Your task to perform on an android device: toggle translation in the chrome app Image 0: 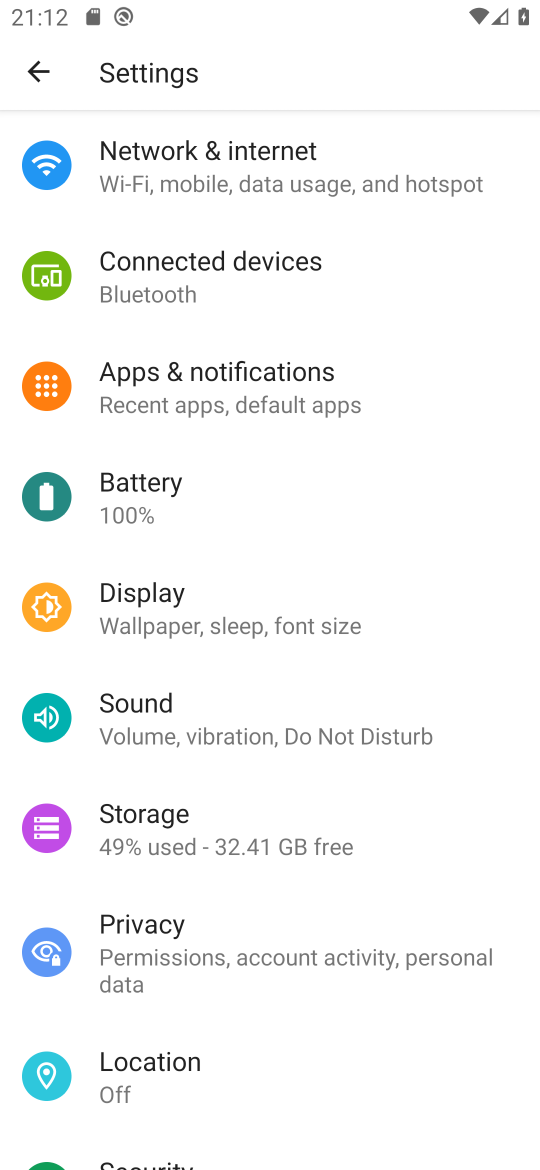
Step 0: press home button
Your task to perform on an android device: toggle translation in the chrome app Image 1: 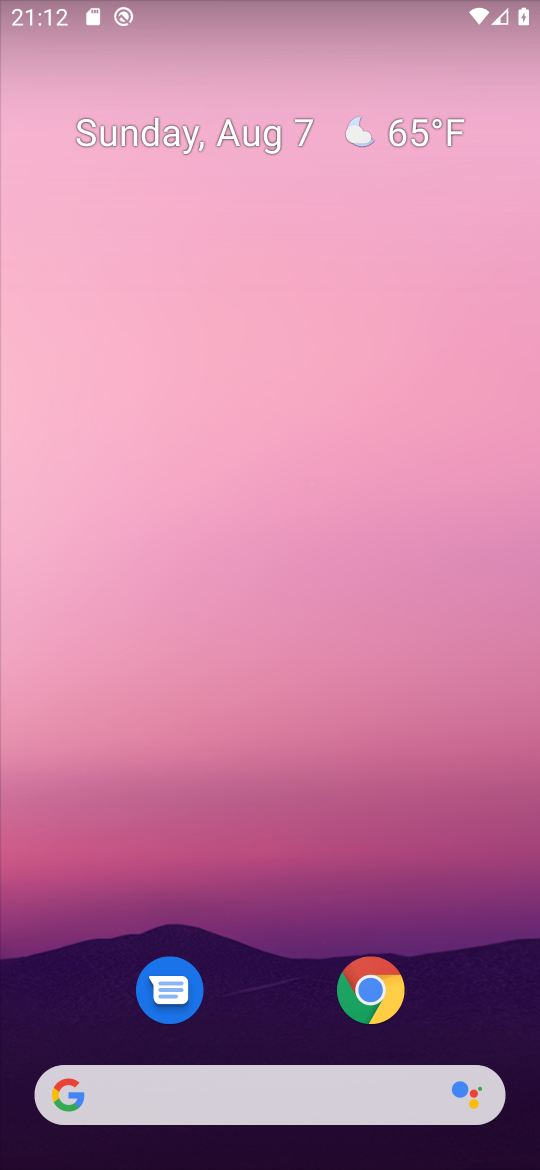
Step 1: click (368, 998)
Your task to perform on an android device: toggle translation in the chrome app Image 2: 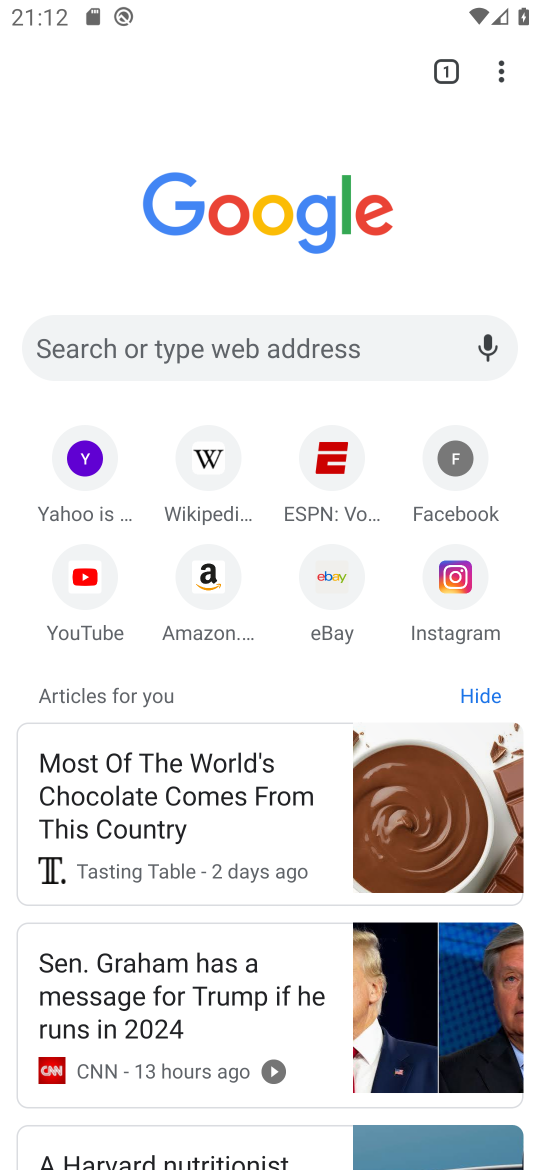
Step 2: click (497, 80)
Your task to perform on an android device: toggle translation in the chrome app Image 3: 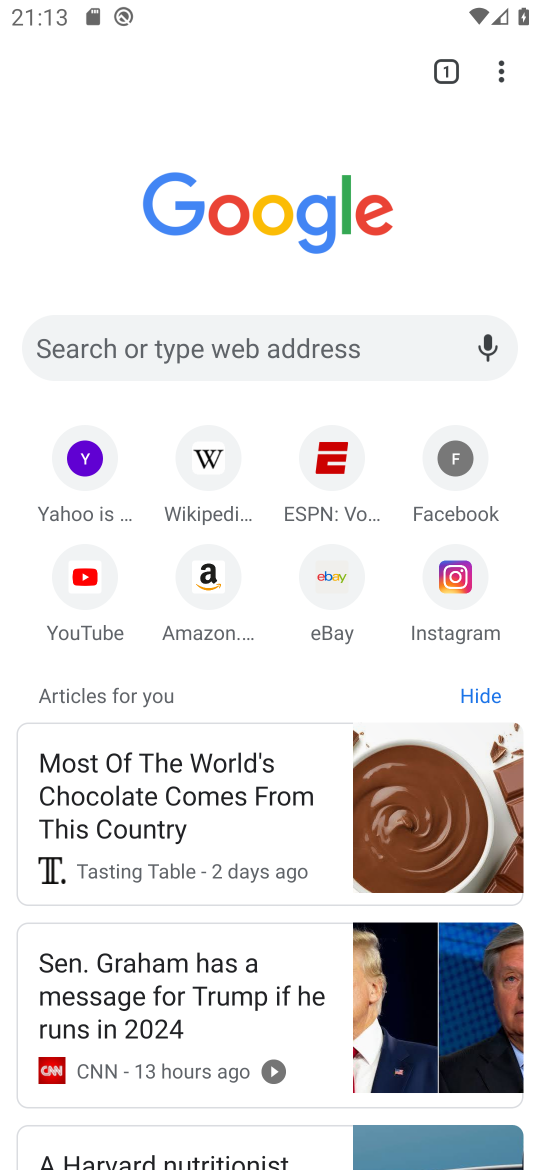
Step 3: click (497, 80)
Your task to perform on an android device: toggle translation in the chrome app Image 4: 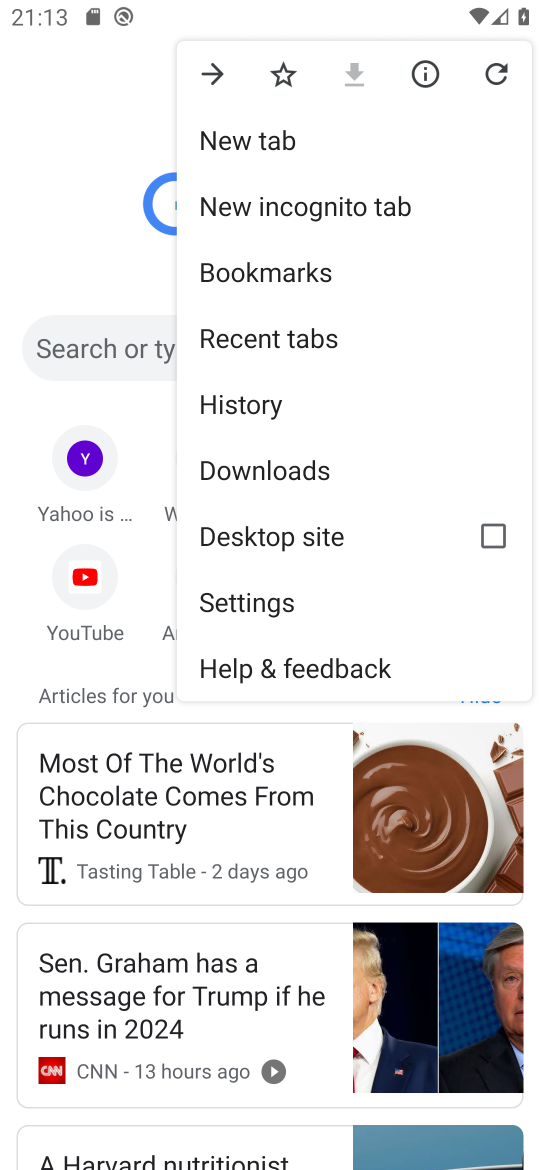
Step 4: click (278, 590)
Your task to perform on an android device: toggle translation in the chrome app Image 5: 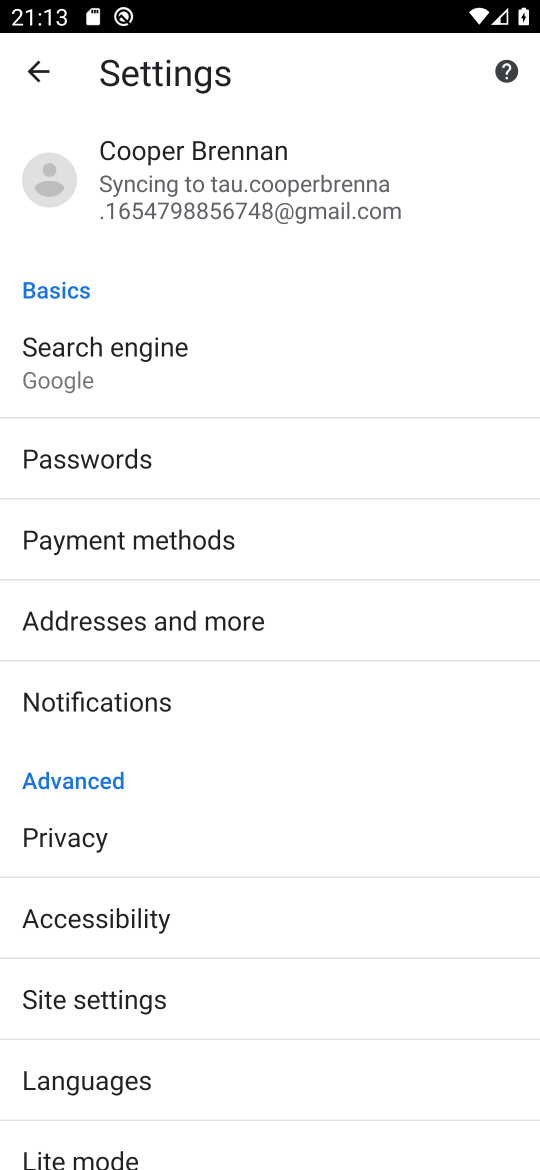
Step 5: click (252, 1076)
Your task to perform on an android device: toggle translation in the chrome app Image 6: 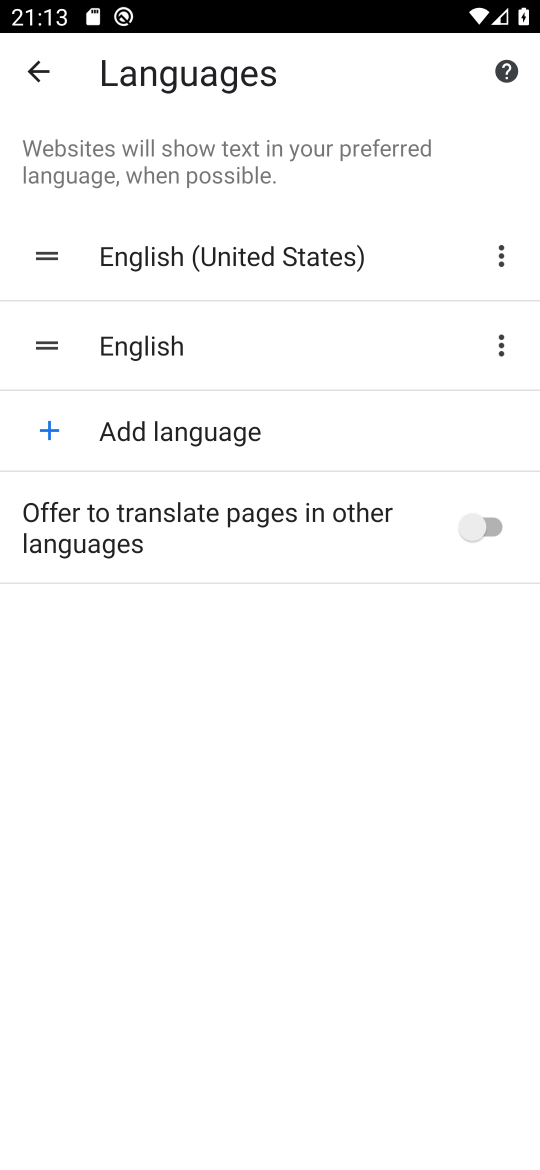
Step 6: click (495, 536)
Your task to perform on an android device: toggle translation in the chrome app Image 7: 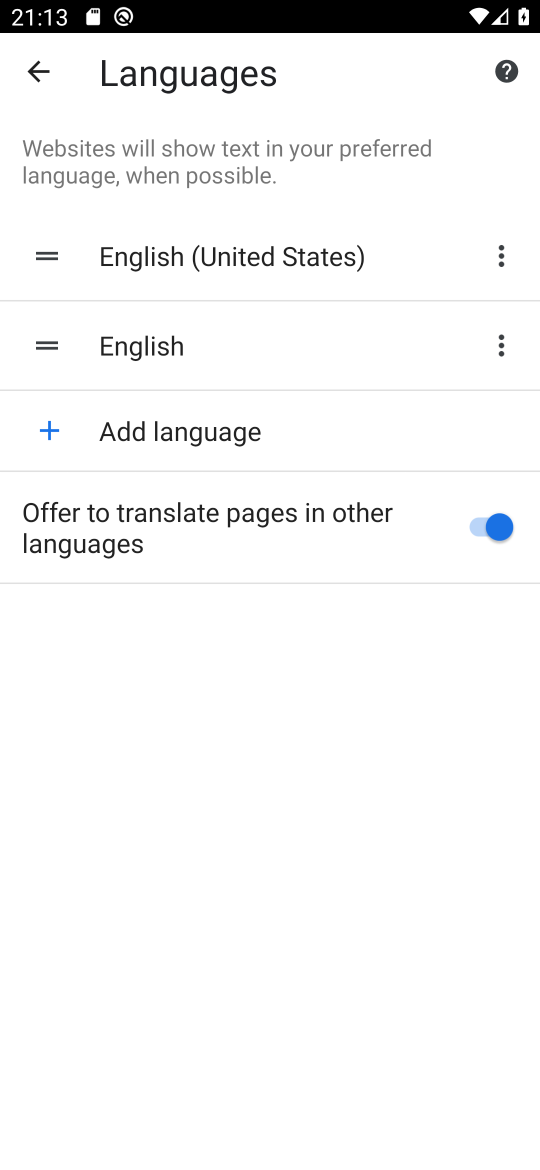
Step 7: task complete